Your task to perform on an android device: What's the weather going to be tomorrow? Image 0: 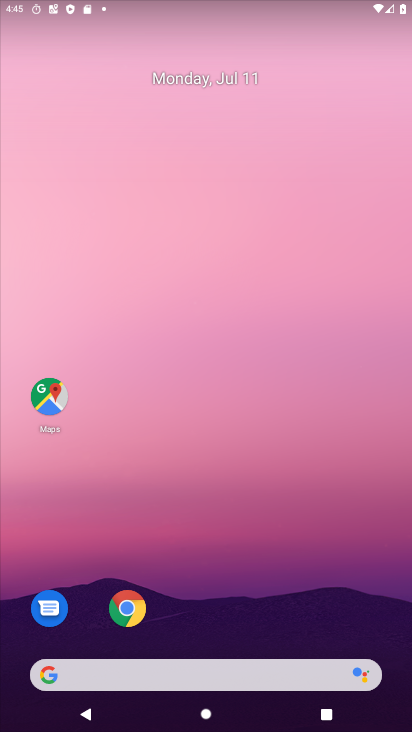
Step 0: drag from (269, 439) to (234, 178)
Your task to perform on an android device: What's the weather going to be tomorrow? Image 1: 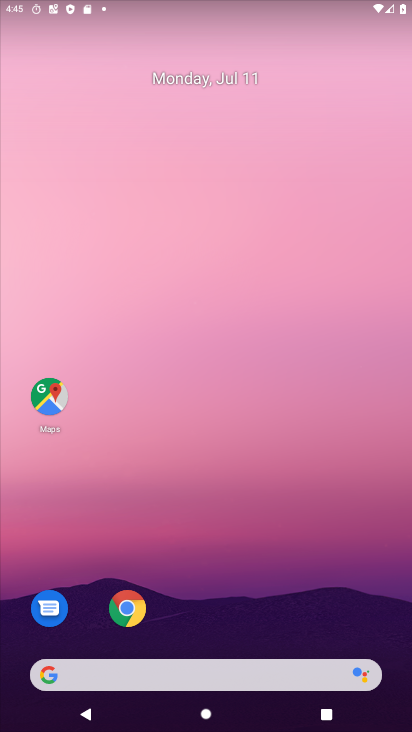
Step 1: click (134, 194)
Your task to perform on an android device: What's the weather going to be tomorrow? Image 2: 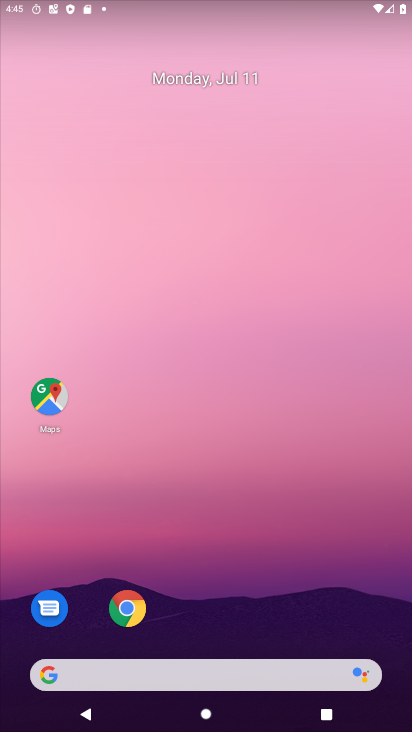
Step 2: drag from (13, 139) to (373, 593)
Your task to perform on an android device: What's the weather going to be tomorrow? Image 3: 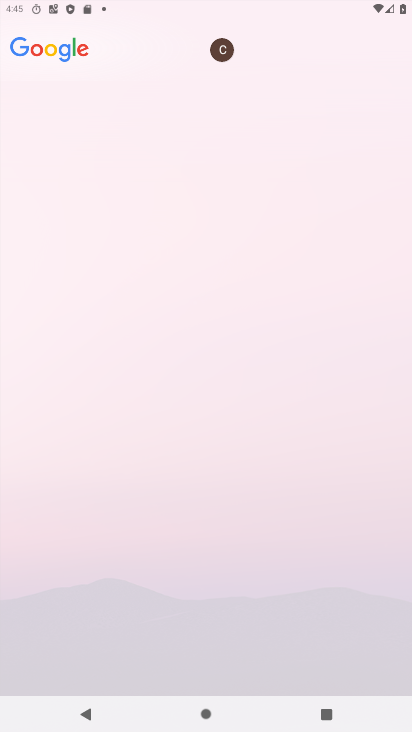
Step 3: drag from (32, 143) to (346, 501)
Your task to perform on an android device: What's the weather going to be tomorrow? Image 4: 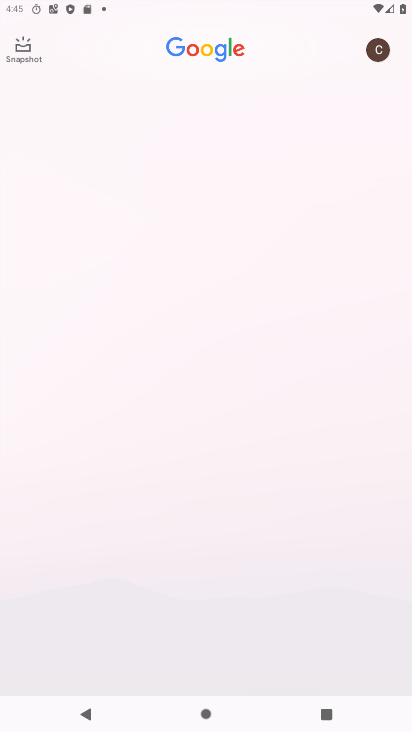
Step 4: drag from (24, 259) to (342, 730)
Your task to perform on an android device: What's the weather going to be tomorrow? Image 5: 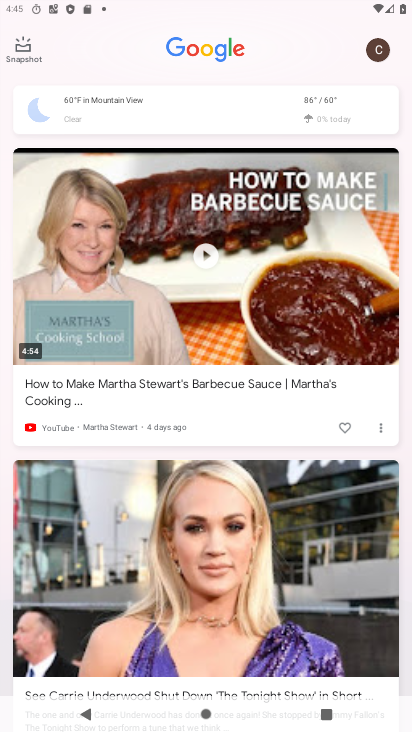
Step 5: click (142, 118)
Your task to perform on an android device: What's the weather going to be tomorrow? Image 6: 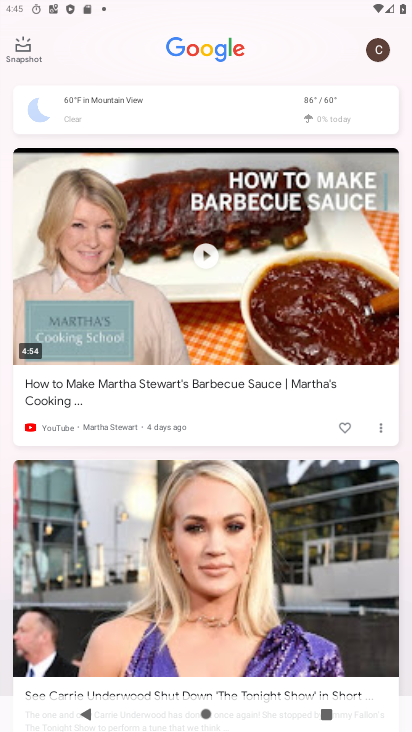
Step 6: click (142, 94)
Your task to perform on an android device: What's the weather going to be tomorrow? Image 7: 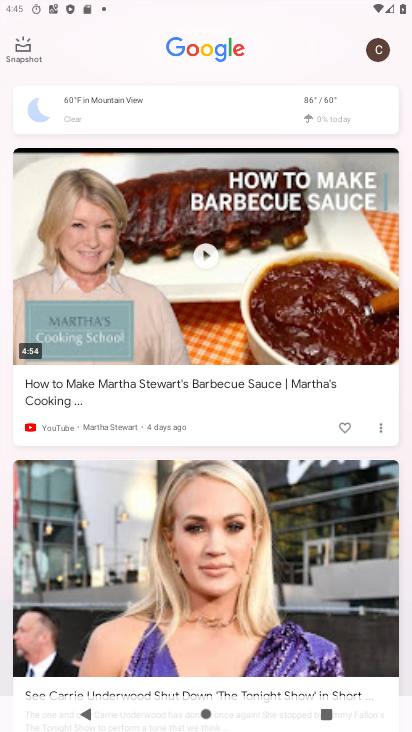
Step 7: click (141, 92)
Your task to perform on an android device: What's the weather going to be tomorrow? Image 8: 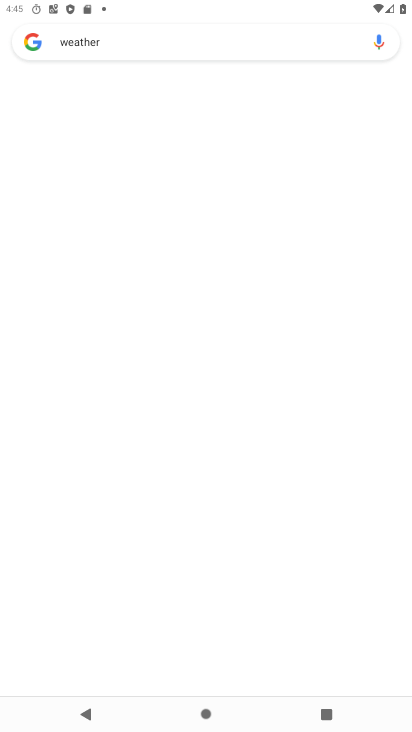
Step 8: click (141, 91)
Your task to perform on an android device: What's the weather going to be tomorrow? Image 9: 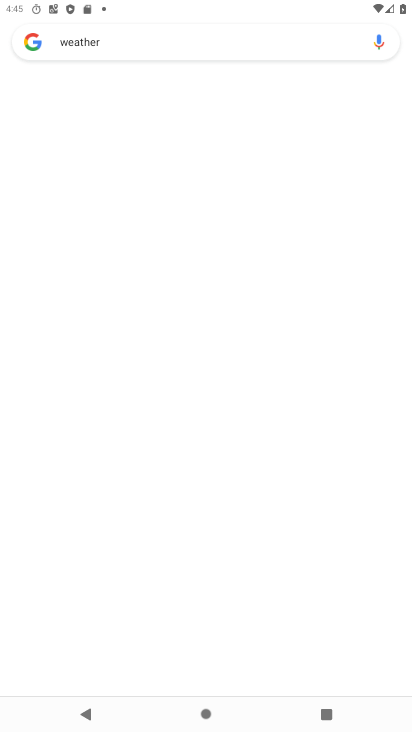
Step 9: click (144, 89)
Your task to perform on an android device: What's the weather going to be tomorrow? Image 10: 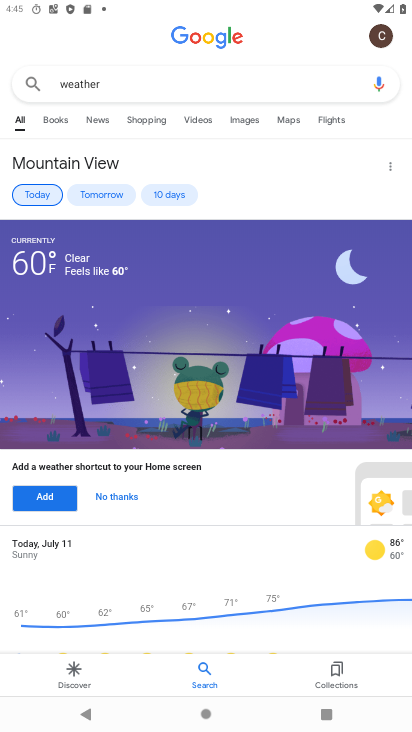
Step 10: task complete